Your task to perform on an android device: turn off improve location accuracy Image 0: 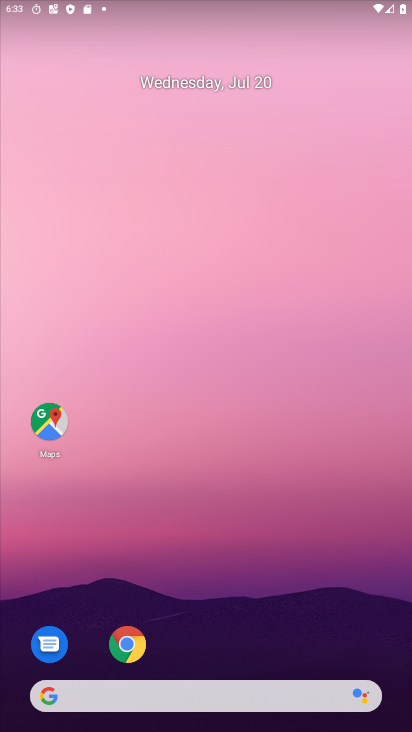
Step 0: drag from (287, 640) to (298, 110)
Your task to perform on an android device: turn off improve location accuracy Image 1: 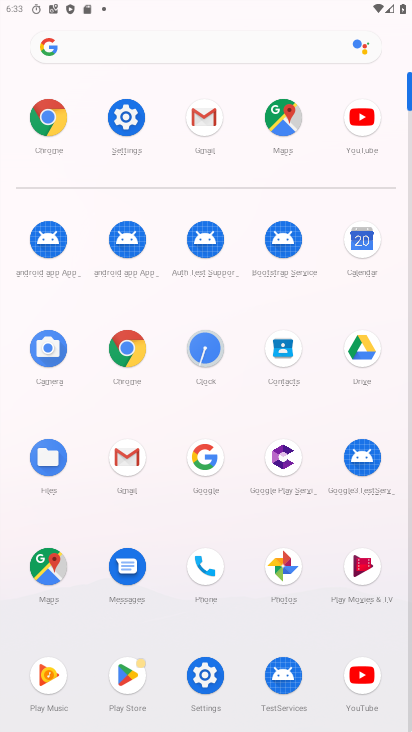
Step 1: click (114, 121)
Your task to perform on an android device: turn off improve location accuracy Image 2: 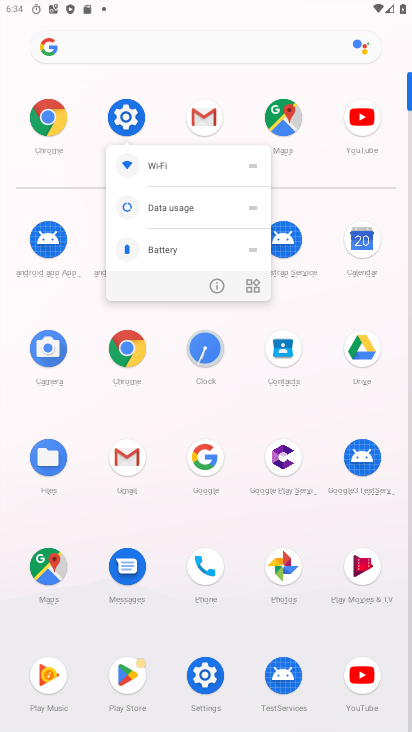
Step 2: click (121, 120)
Your task to perform on an android device: turn off improve location accuracy Image 3: 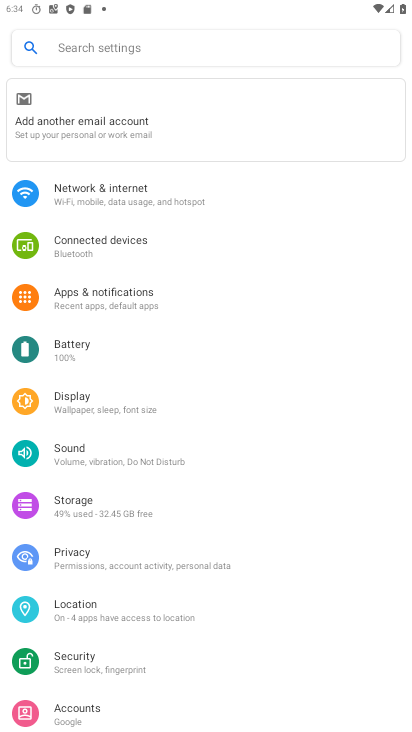
Step 3: click (69, 601)
Your task to perform on an android device: turn off improve location accuracy Image 4: 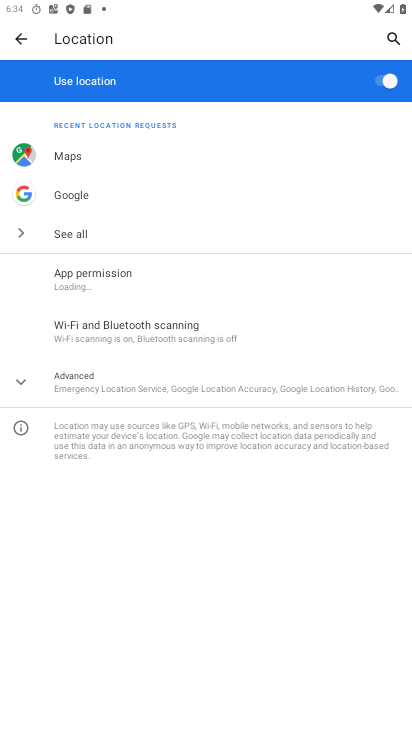
Step 4: click (64, 381)
Your task to perform on an android device: turn off improve location accuracy Image 5: 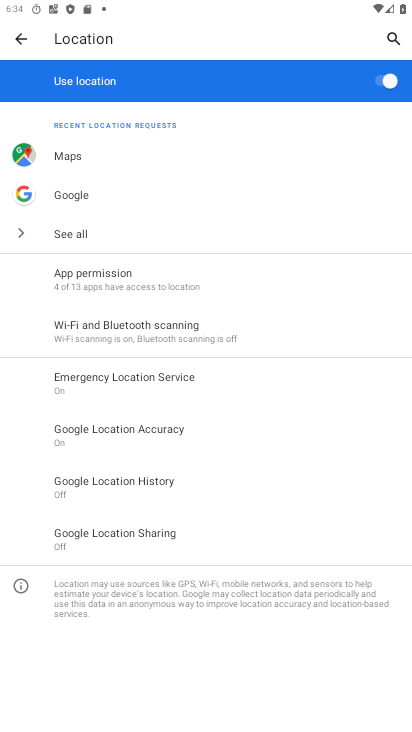
Step 5: click (132, 434)
Your task to perform on an android device: turn off improve location accuracy Image 6: 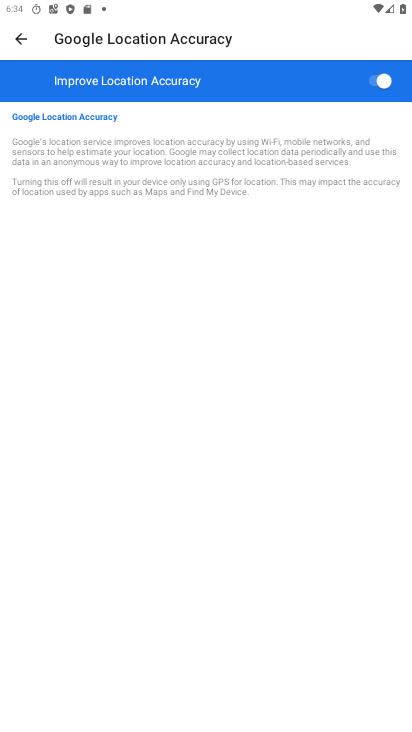
Step 6: click (379, 82)
Your task to perform on an android device: turn off improve location accuracy Image 7: 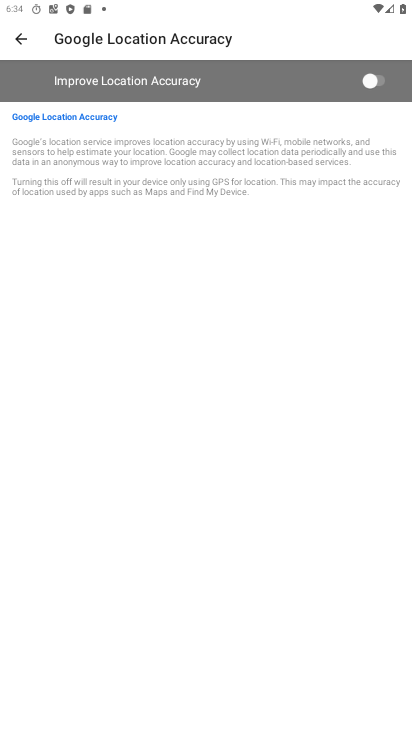
Step 7: task complete